Your task to perform on an android device: turn off smart reply in the gmail app Image 0: 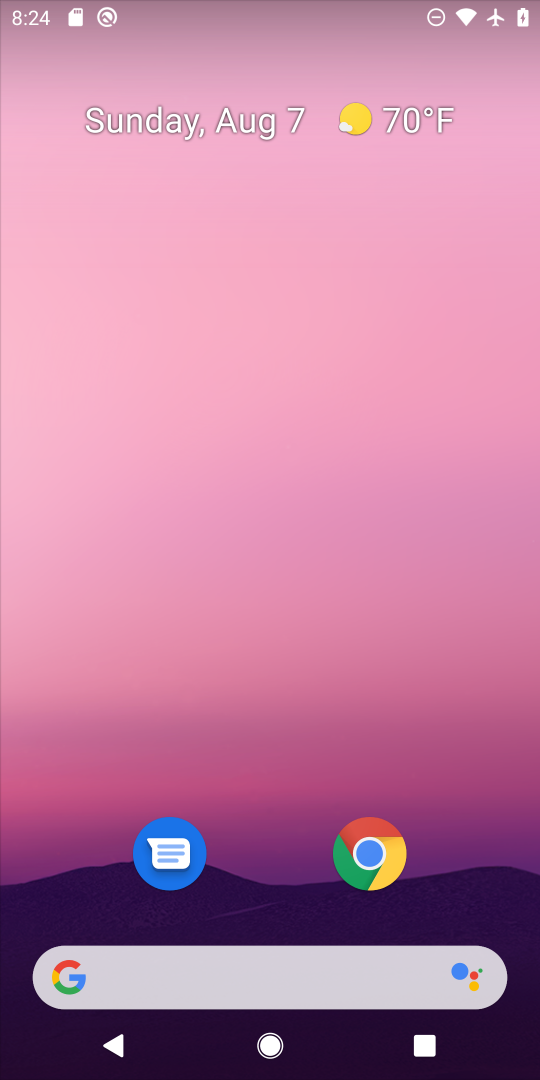
Step 0: drag from (317, 599) to (347, 166)
Your task to perform on an android device: turn off smart reply in the gmail app Image 1: 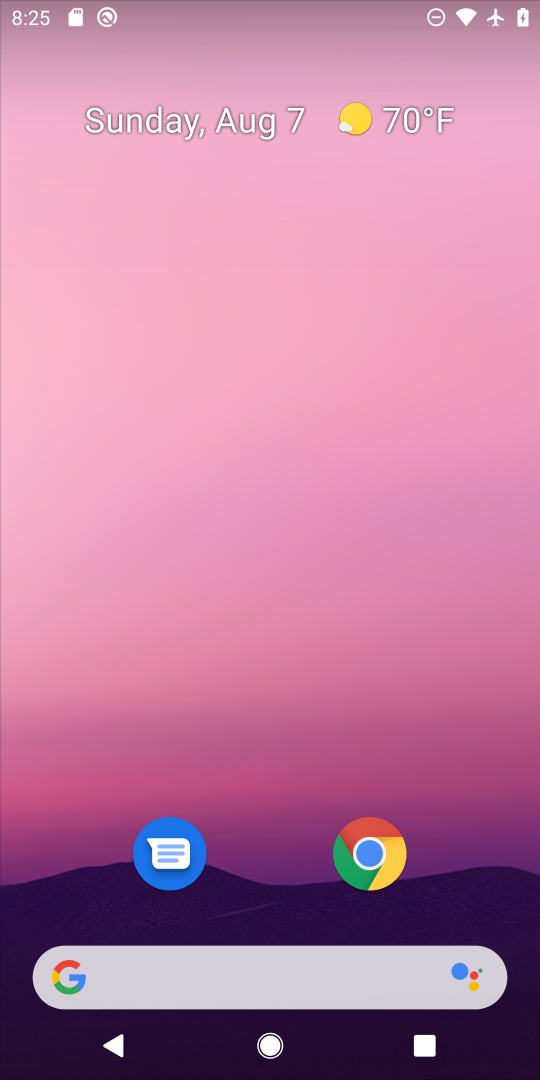
Step 1: drag from (275, 841) to (235, 260)
Your task to perform on an android device: turn off smart reply in the gmail app Image 2: 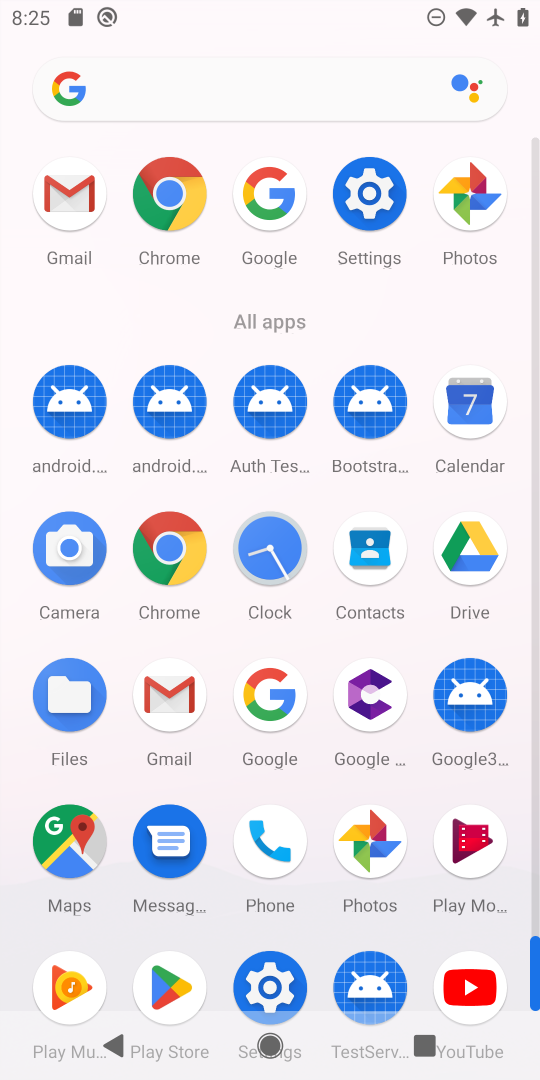
Step 2: click (167, 701)
Your task to perform on an android device: turn off smart reply in the gmail app Image 3: 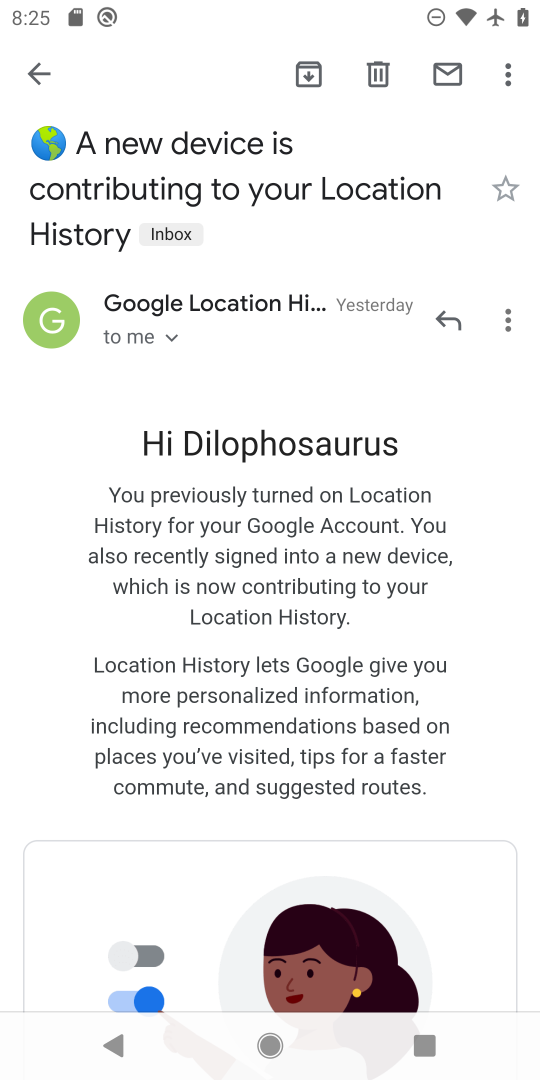
Step 3: click (57, 69)
Your task to perform on an android device: turn off smart reply in the gmail app Image 4: 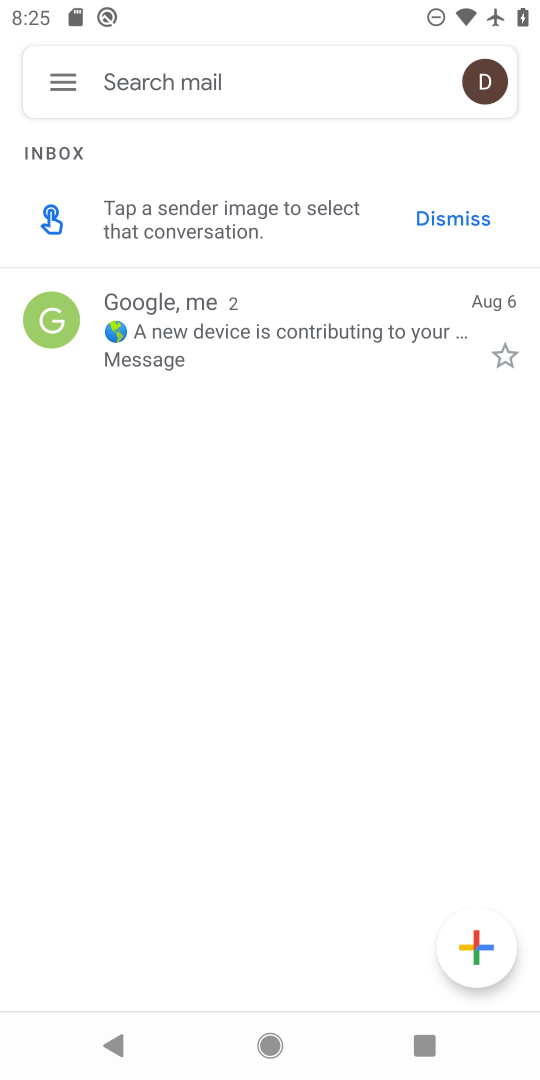
Step 4: click (69, 89)
Your task to perform on an android device: turn off smart reply in the gmail app Image 5: 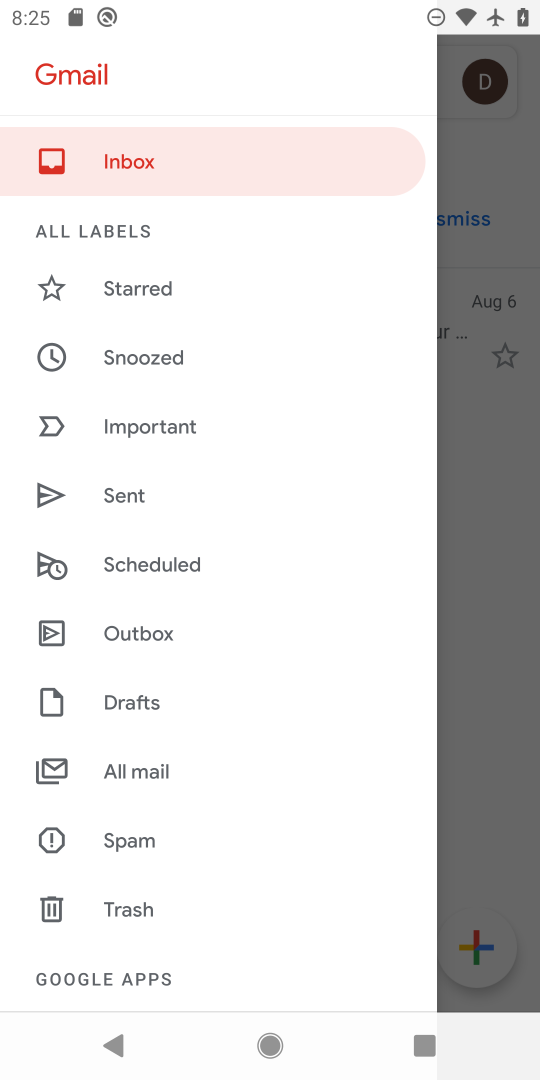
Step 5: drag from (124, 901) to (167, 253)
Your task to perform on an android device: turn off smart reply in the gmail app Image 6: 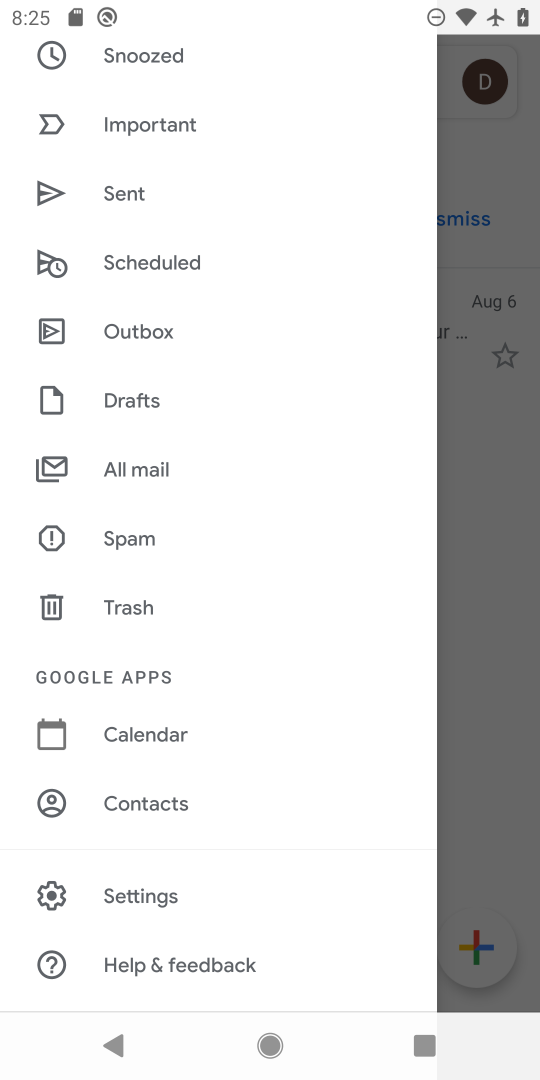
Step 6: click (141, 894)
Your task to perform on an android device: turn off smart reply in the gmail app Image 7: 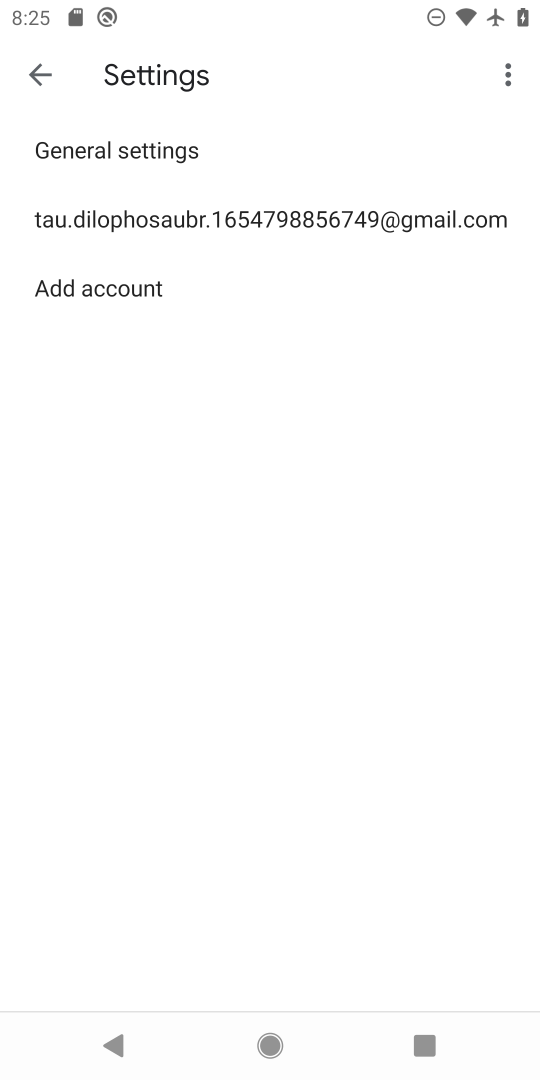
Step 7: click (161, 225)
Your task to perform on an android device: turn off smart reply in the gmail app Image 8: 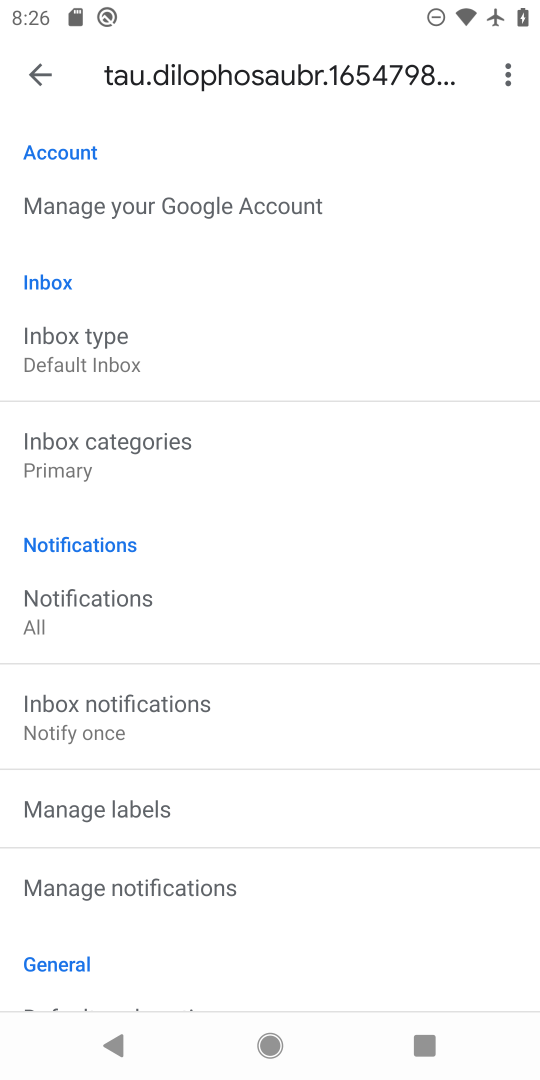
Step 8: drag from (212, 789) to (241, 195)
Your task to perform on an android device: turn off smart reply in the gmail app Image 9: 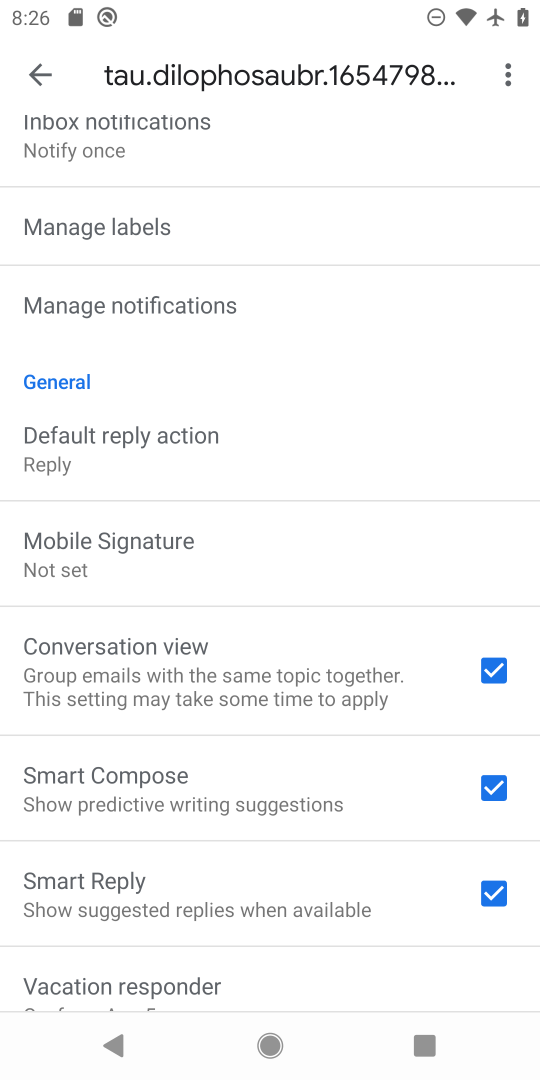
Step 9: click (479, 892)
Your task to perform on an android device: turn off smart reply in the gmail app Image 10: 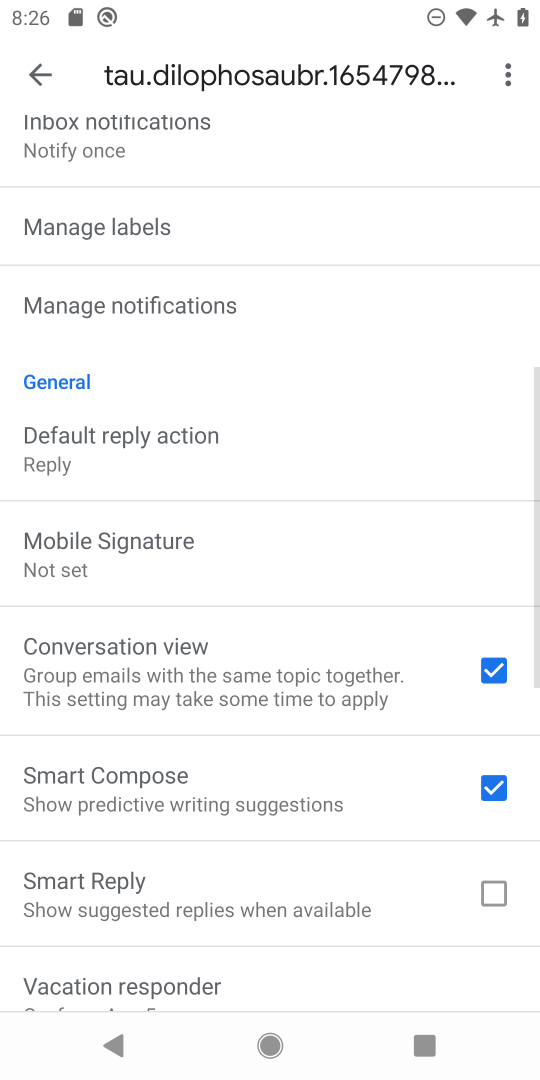
Step 10: task complete